Your task to perform on an android device: Open Google Chrome Image 0: 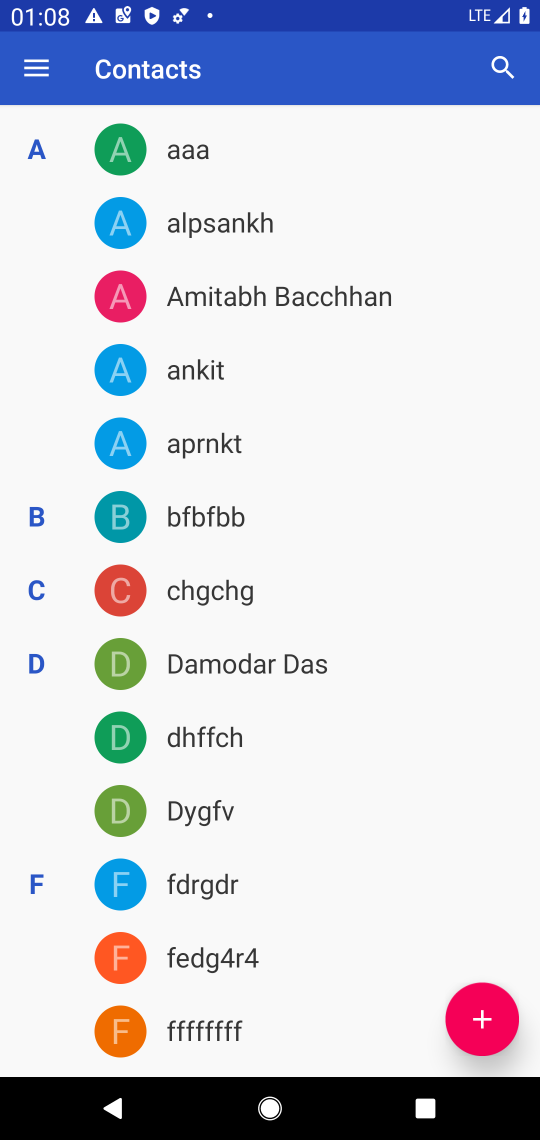
Step 0: press home button
Your task to perform on an android device: Open Google Chrome Image 1: 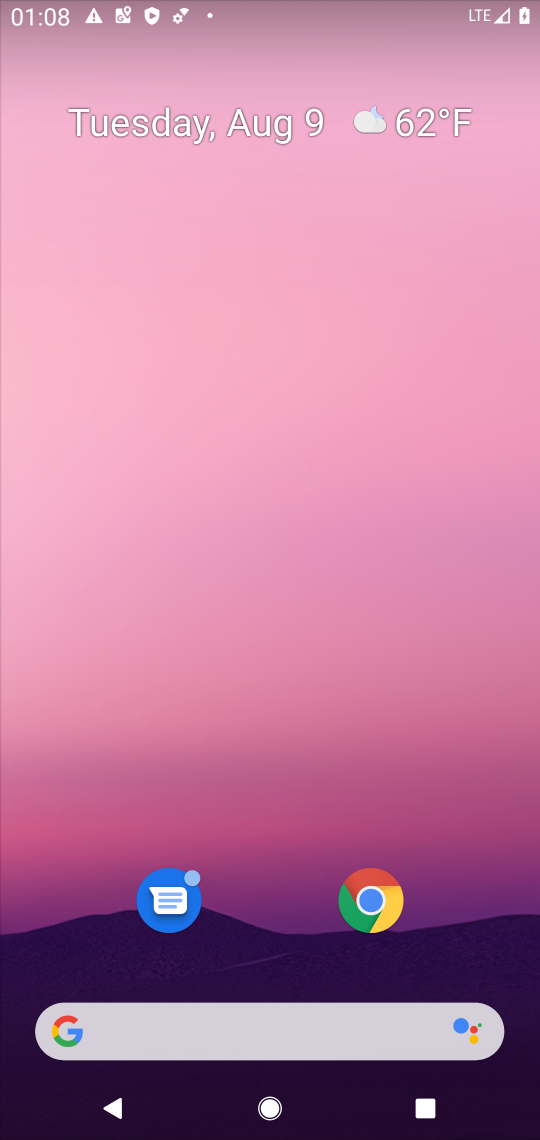
Step 1: drag from (280, 897) to (321, 173)
Your task to perform on an android device: Open Google Chrome Image 2: 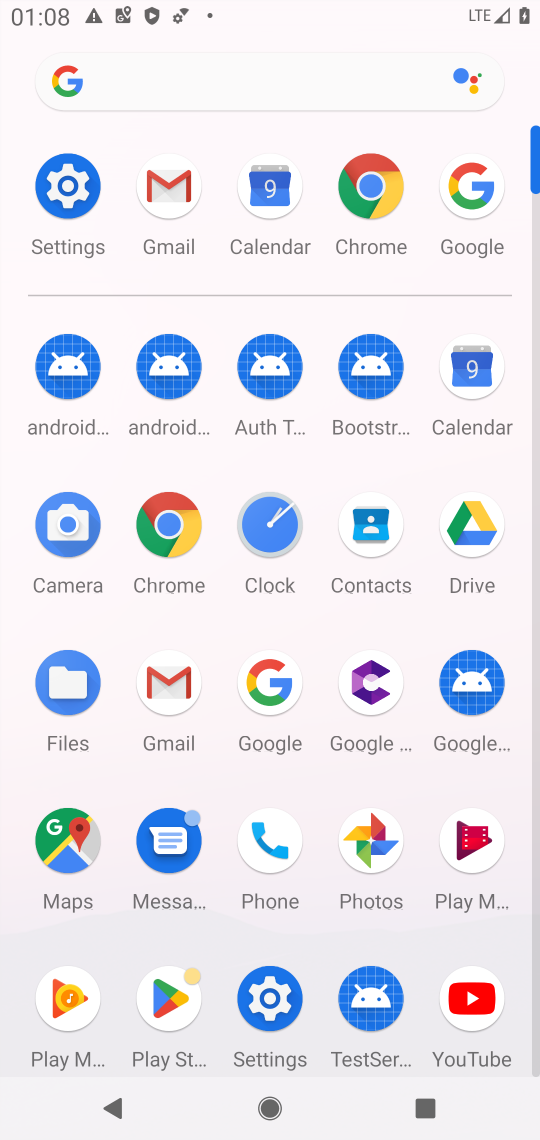
Step 2: click (164, 530)
Your task to perform on an android device: Open Google Chrome Image 3: 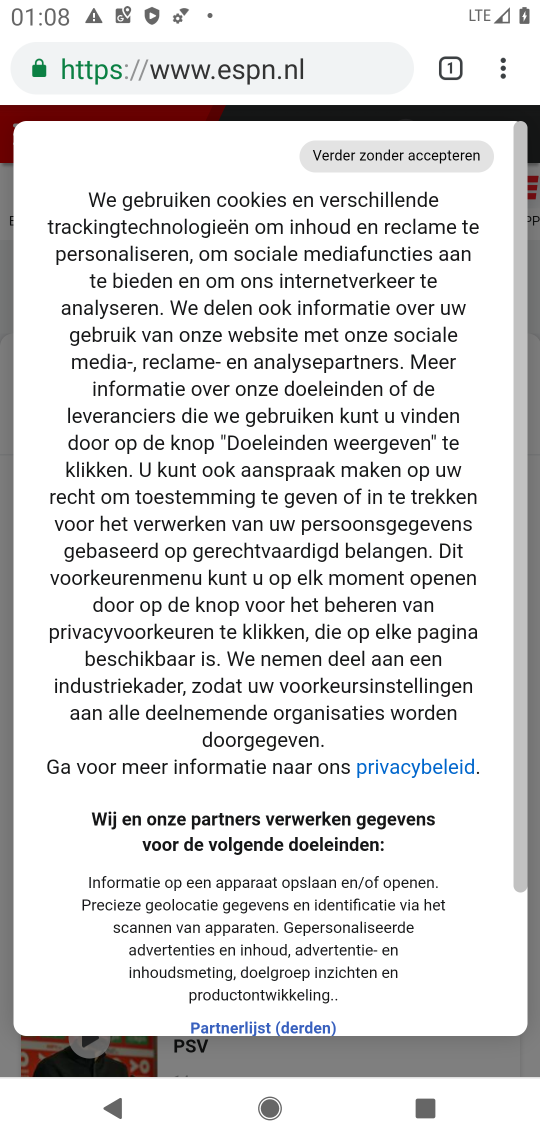
Step 3: task complete